Your task to perform on an android device: all mails in gmail Image 0: 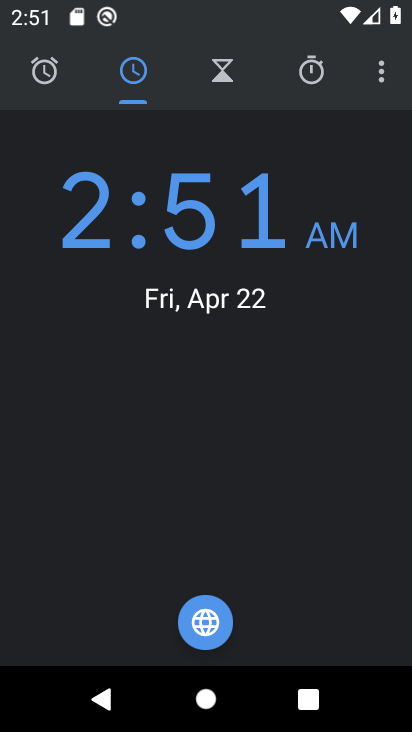
Step 0: press home button
Your task to perform on an android device: all mails in gmail Image 1: 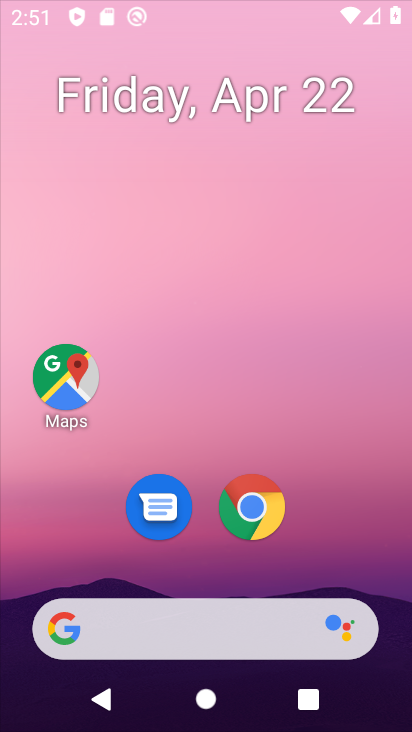
Step 1: drag from (383, 512) to (382, 120)
Your task to perform on an android device: all mails in gmail Image 2: 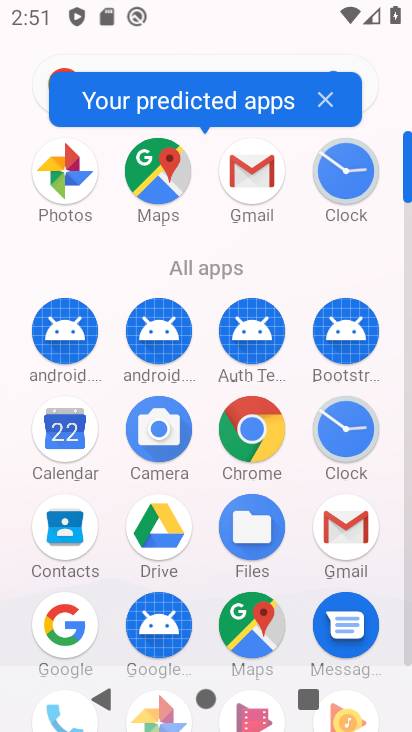
Step 2: click (330, 536)
Your task to perform on an android device: all mails in gmail Image 3: 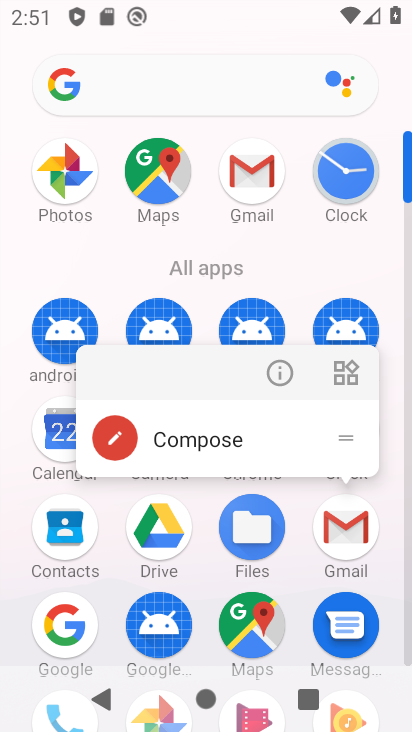
Step 3: click (343, 550)
Your task to perform on an android device: all mails in gmail Image 4: 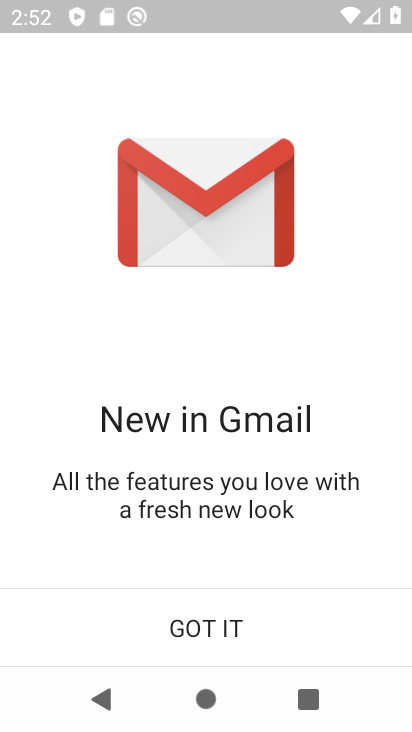
Step 4: click (235, 635)
Your task to perform on an android device: all mails in gmail Image 5: 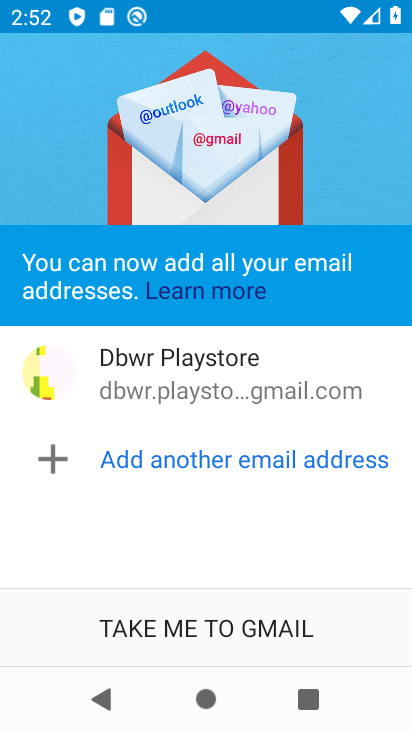
Step 5: click (275, 645)
Your task to perform on an android device: all mails in gmail Image 6: 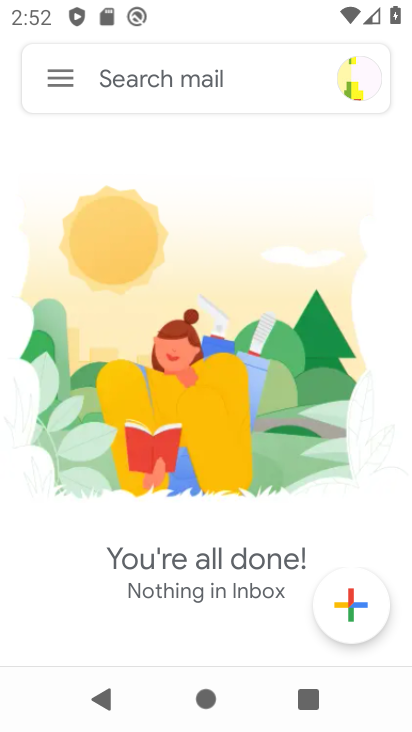
Step 6: click (56, 87)
Your task to perform on an android device: all mails in gmail Image 7: 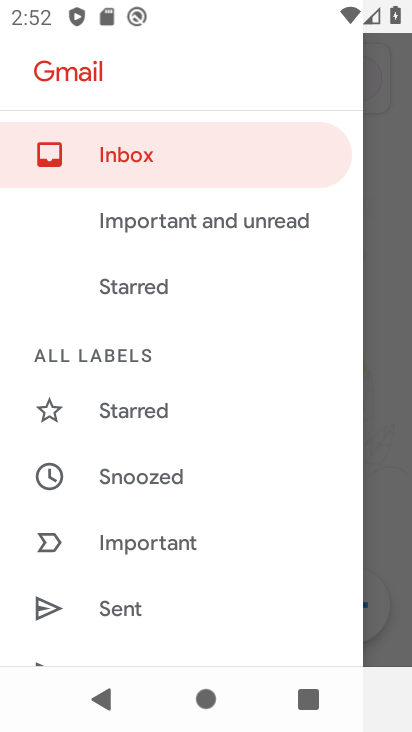
Step 7: drag from (191, 628) to (256, 309)
Your task to perform on an android device: all mails in gmail Image 8: 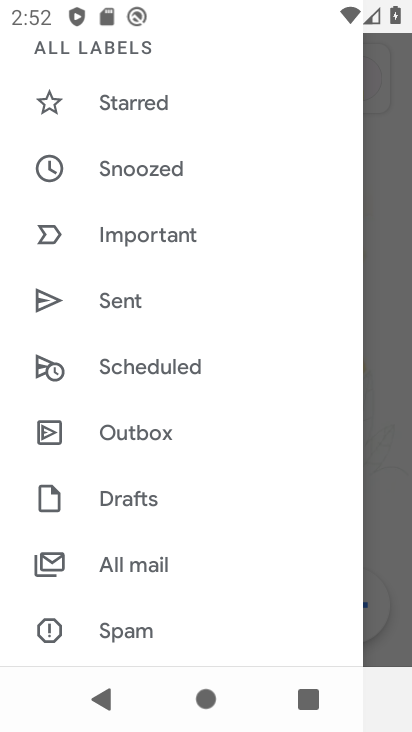
Step 8: click (187, 574)
Your task to perform on an android device: all mails in gmail Image 9: 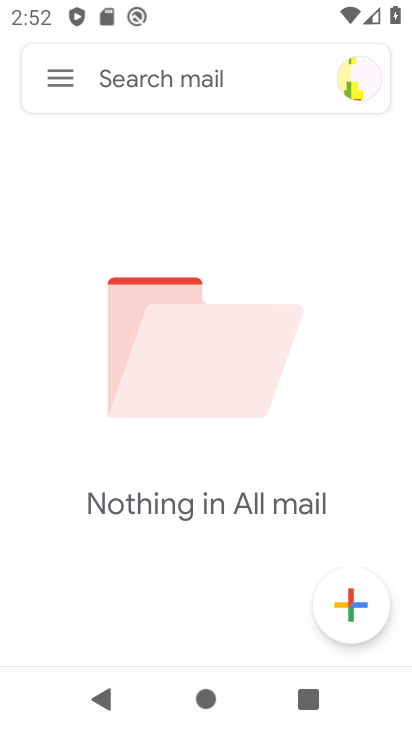
Step 9: task complete